Your task to perform on an android device: Open location settings Image 0: 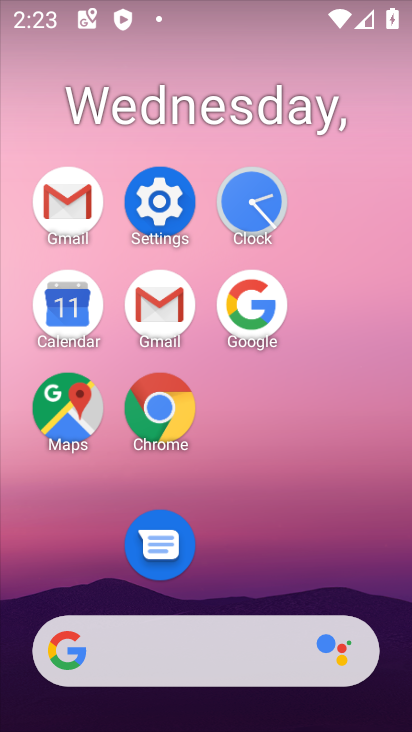
Step 0: click (160, 218)
Your task to perform on an android device: Open location settings Image 1: 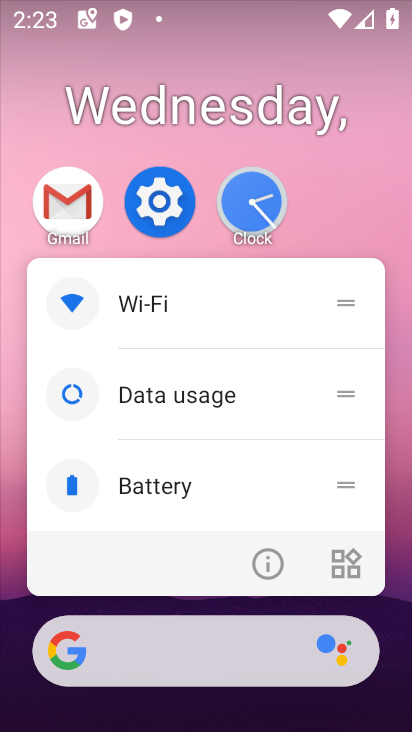
Step 1: click (167, 208)
Your task to perform on an android device: Open location settings Image 2: 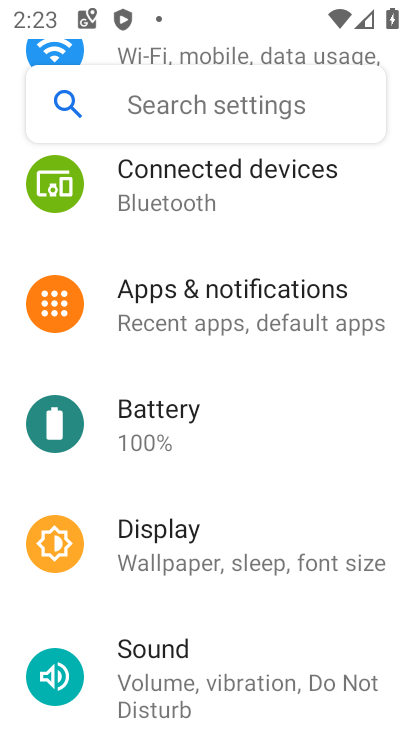
Step 2: drag from (267, 635) to (308, 238)
Your task to perform on an android device: Open location settings Image 3: 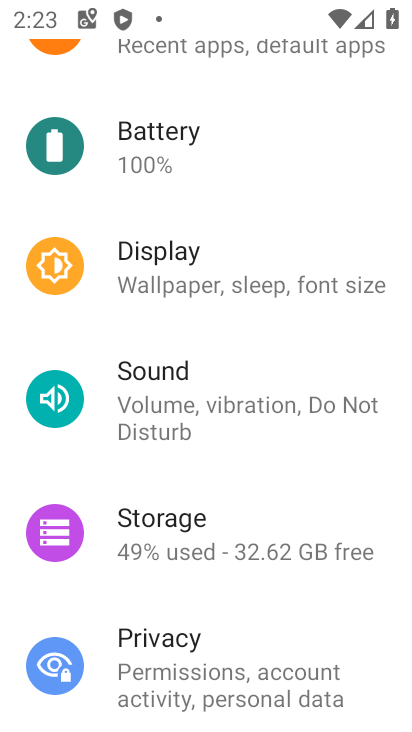
Step 3: drag from (265, 589) to (282, 220)
Your task to perform on an android device: Open location settings Image 4: 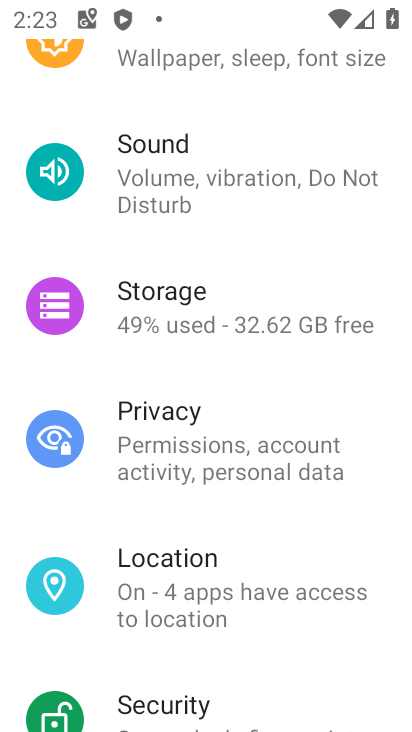
Step 4: click (260, 593)
Your task to perform on an android device: Open location settings Image 5: 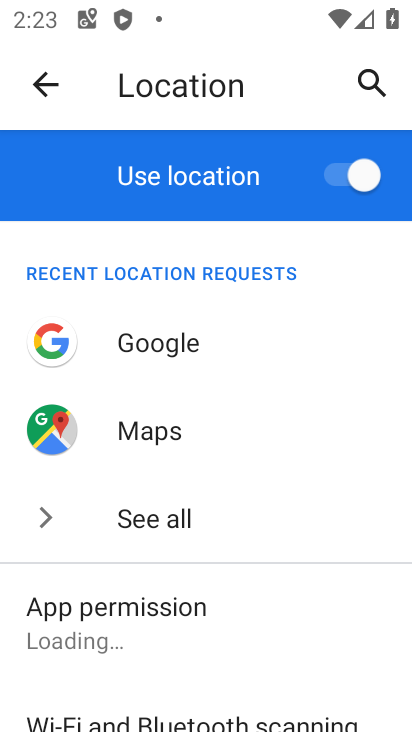
Step 5: task complete